Your task to perform on an android device: stop showing notifications on the lock screen Image 0: 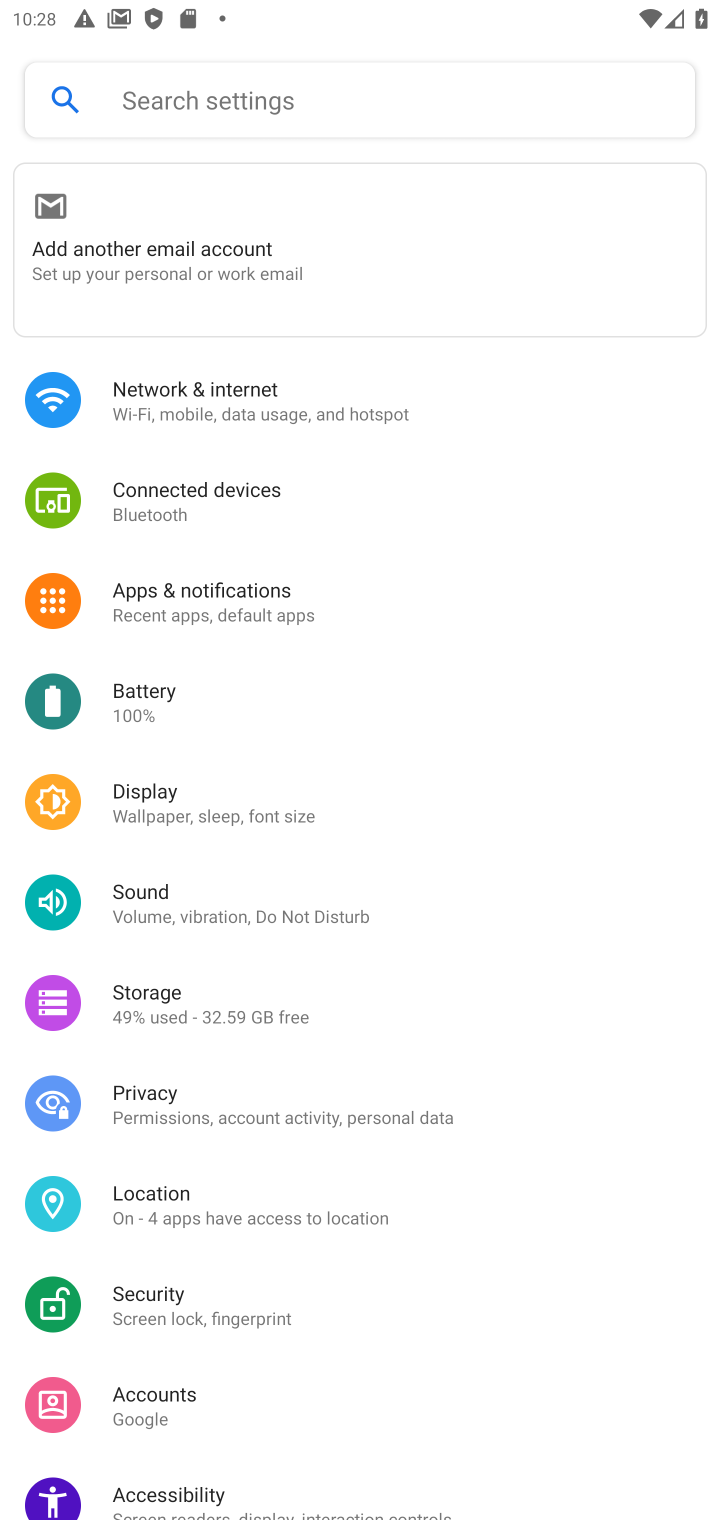
Step 0: click (251, 606)
Your task to perform on an android device: stop showing notifications on the lock screen Image 1: 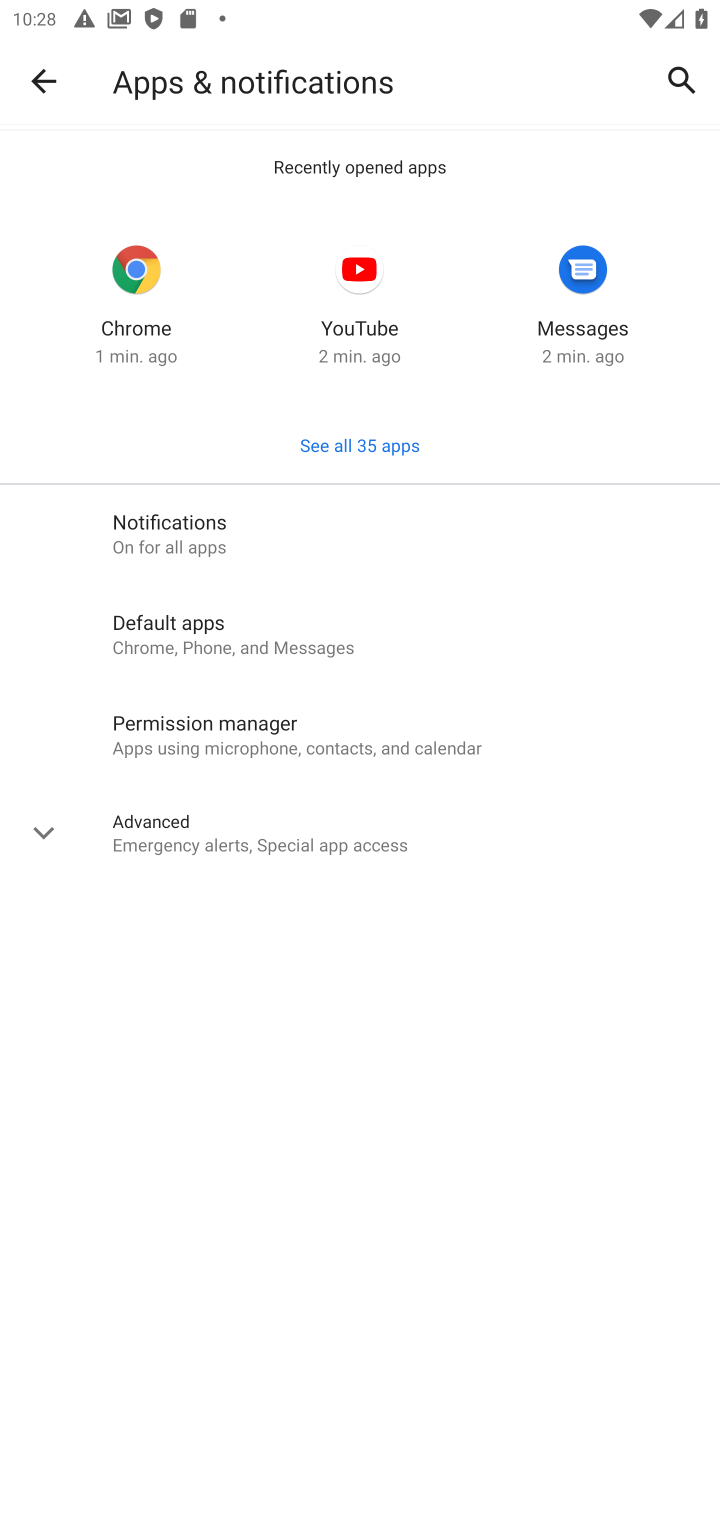
Step 1: click (179, 543)
Your task to perform on an android device: stop showing notifications on the lock screen Image 2: 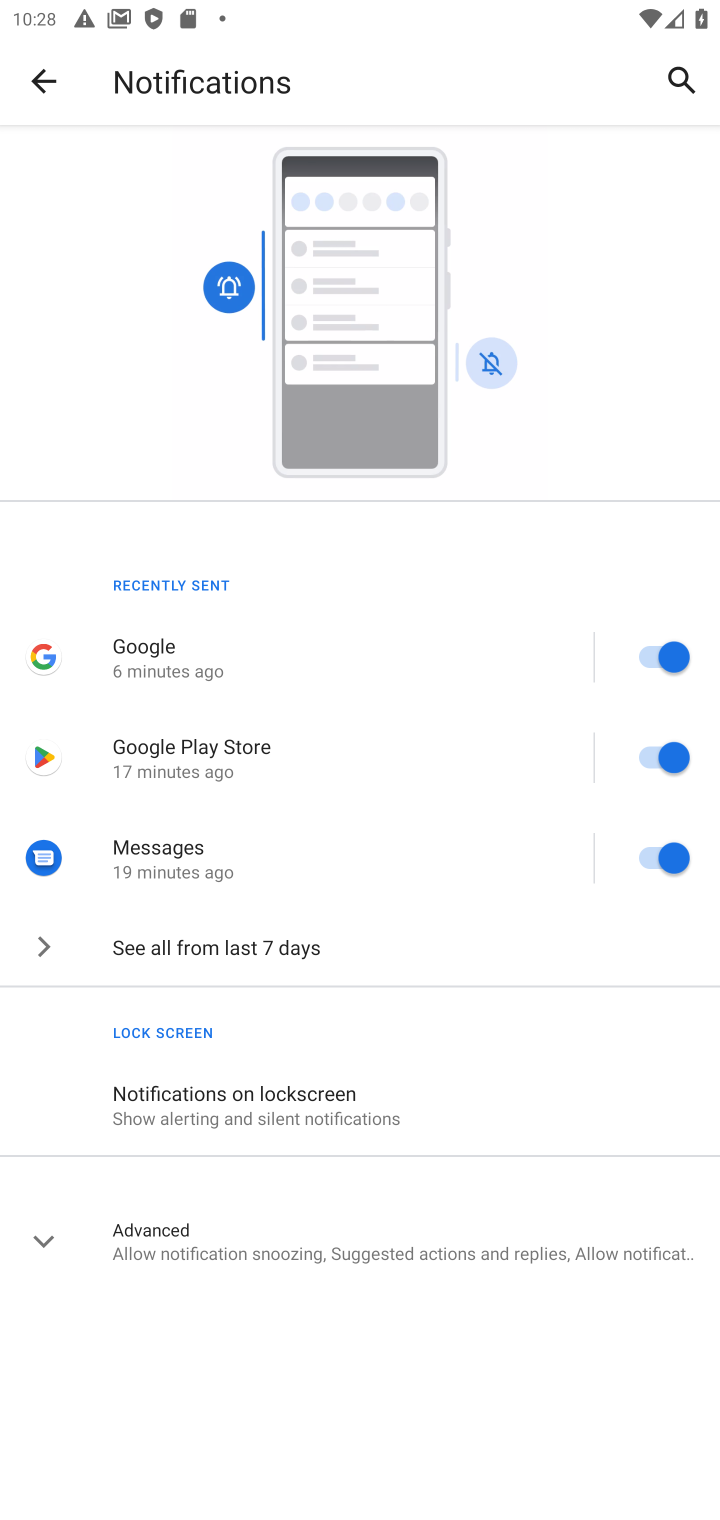
Step 2: click (276, 1111)
Your task to perform on an android device: stop showing notifications on the lock screen Image 3: 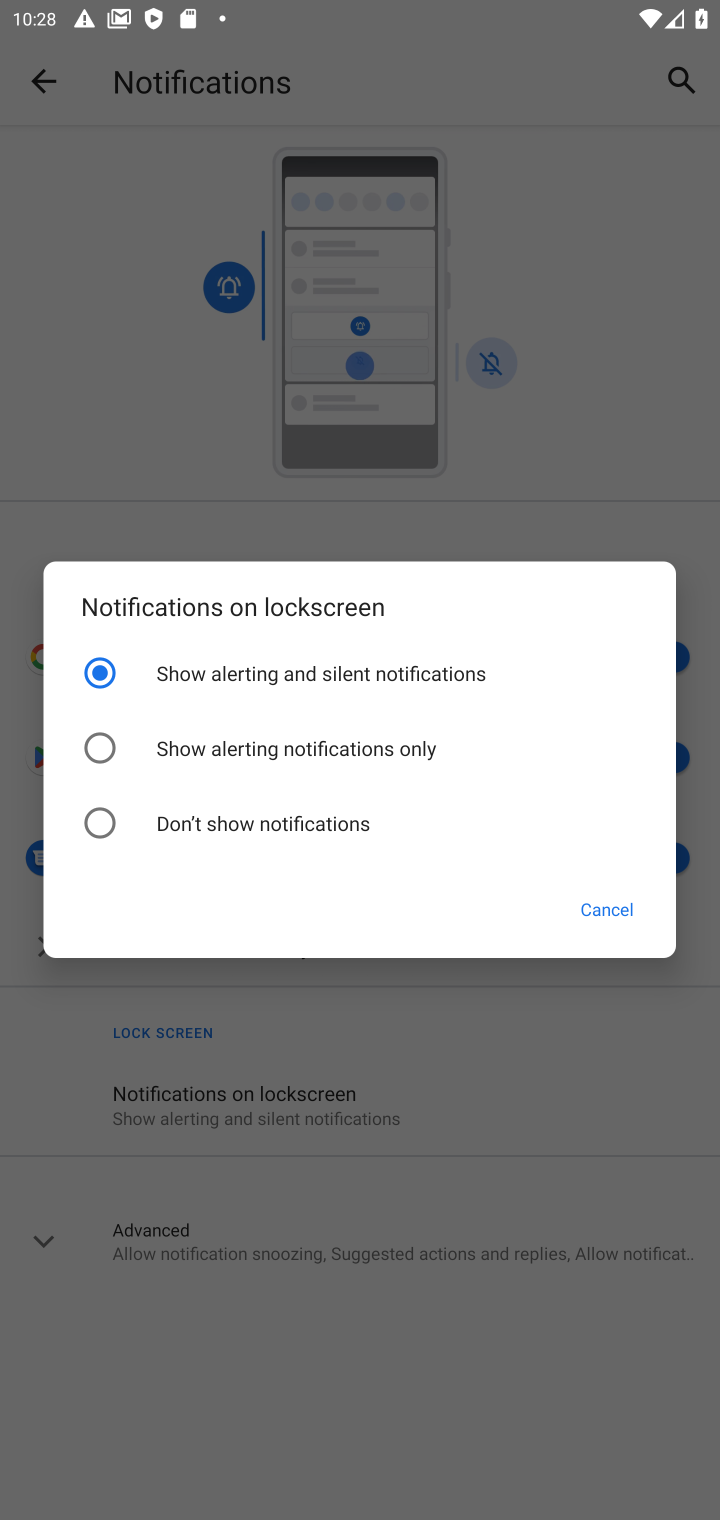
Step 3: click (211, 830)
Your task to perform on an android device: stop showing notifications on the lock screen Image 4: 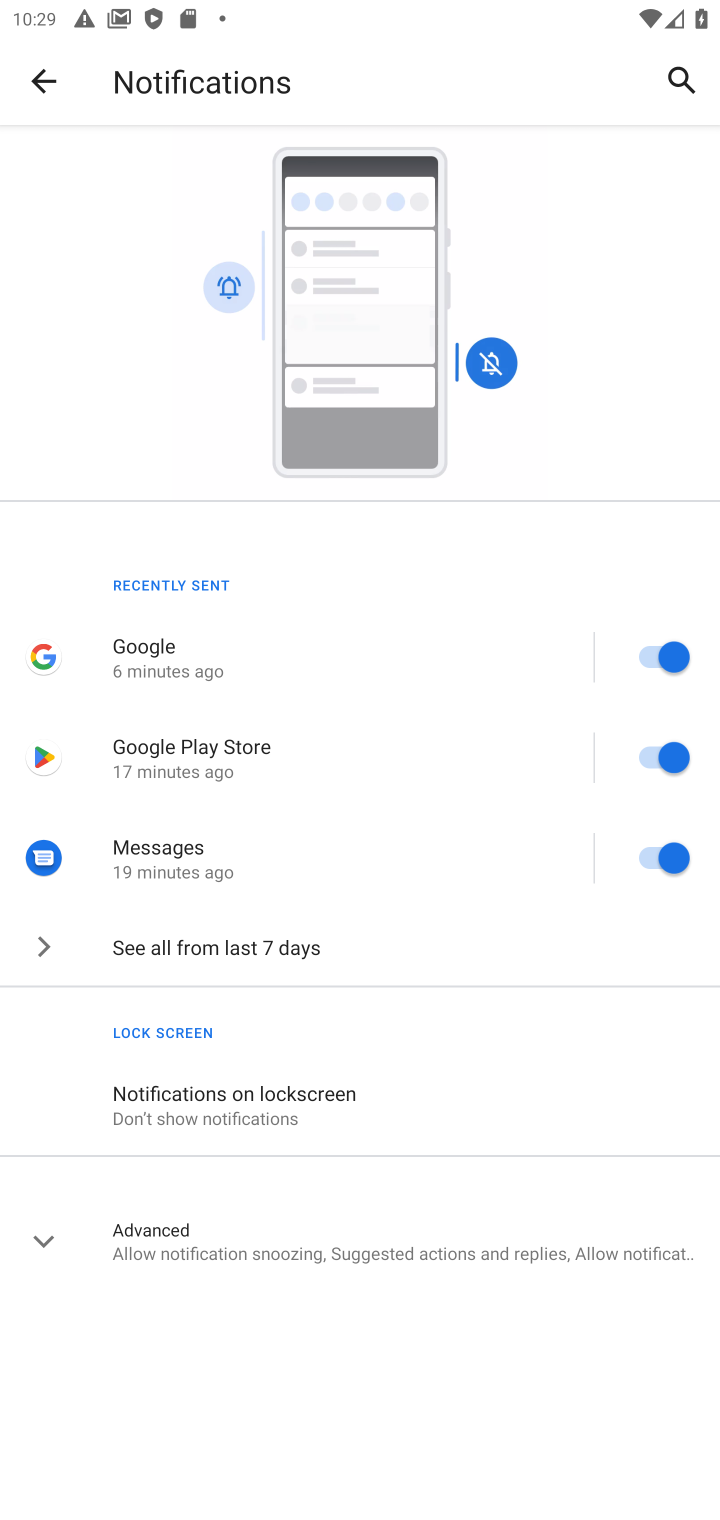
Step 4: task complete